Your task to perform on an android device: Toggle the flashlight Image 0: 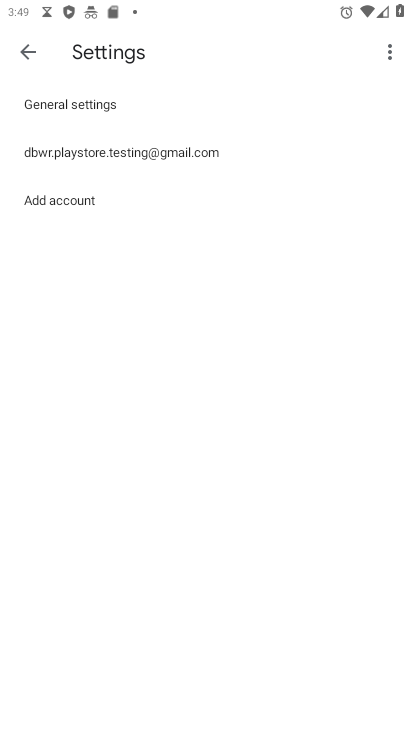
Step 0: click (28, 58)
Your task to perform on an android device: Toggle the flashlight Image 1: 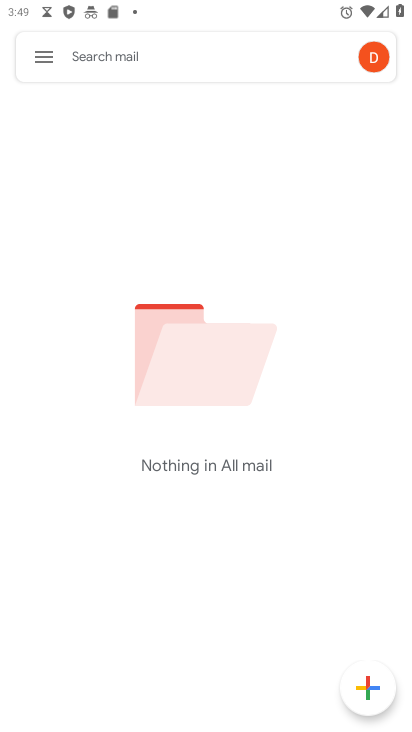
Step 1: task complete